Your task to perform on an android device: read, delete, or share a saved page in the chrome app Image 0: 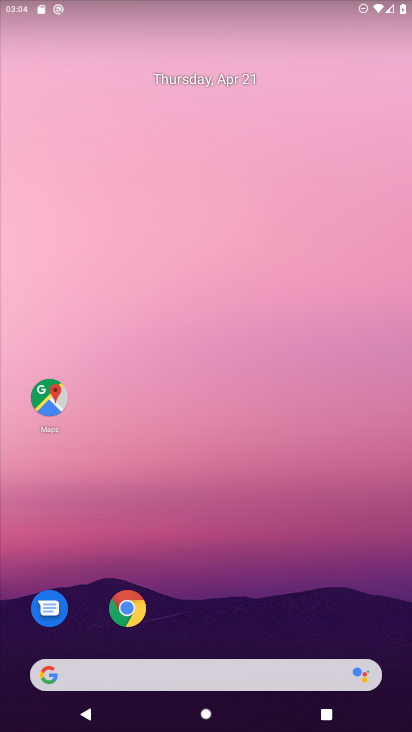
Step 0: drag from (240, 458) to (226, 236)
Your task to perform on an android device: read, delete, or share a saved page in the chrome app Image 1: 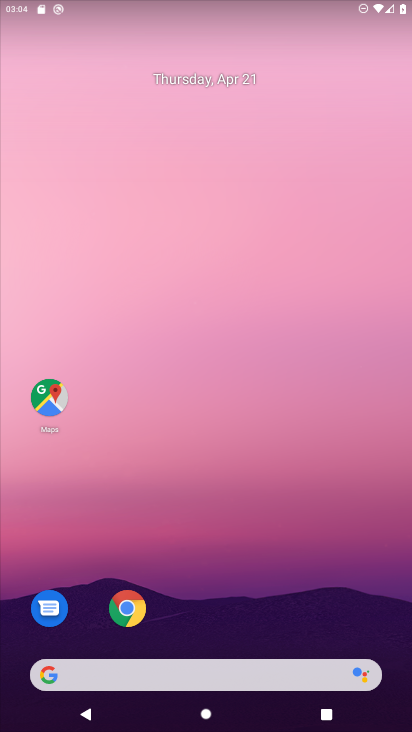
Step 1: drag from (216, 616) to (201, 264)
Your task to perform on an android device: read, delete, or share a saved page in the chrome app Image 2: 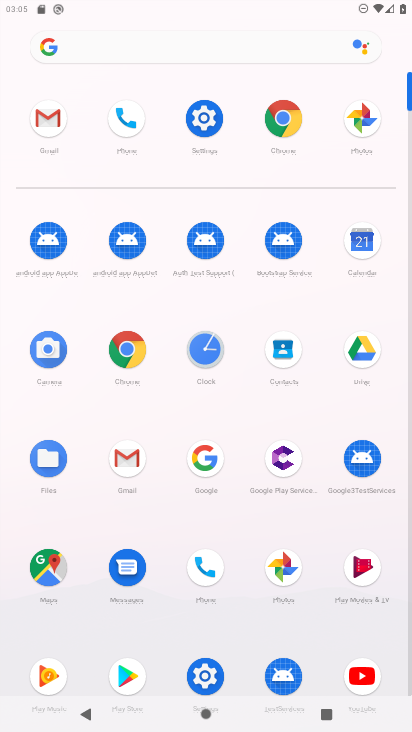
Step 2: click (280, 112)
Your task to perform on an android device: read, delete, or share a saved page in the chrome app Image 3: 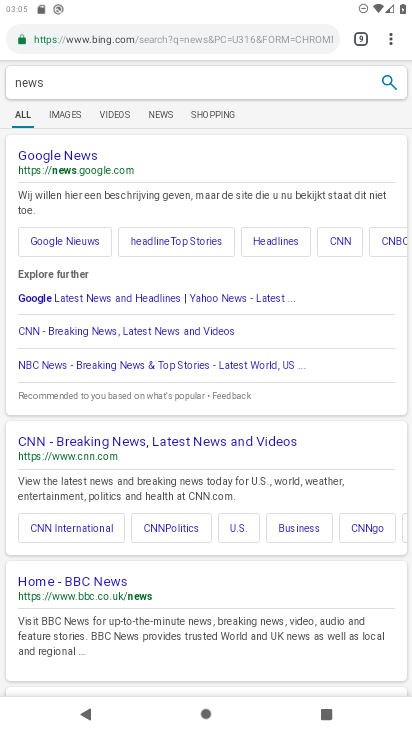
Step 3: click (386, 38)
Your task to perform on an android device: read, delete, or share a saved page in the chrome app Image 4: 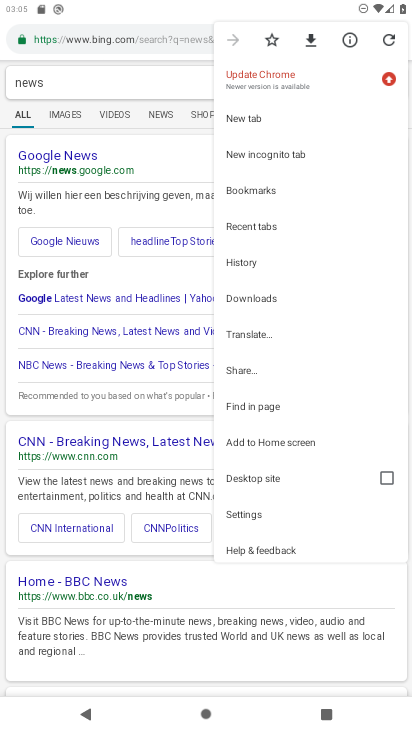
Step 4: click (262, 297)
Your task to perform on an android device: read, delete, or share a saved page in the chrome app Image 5: 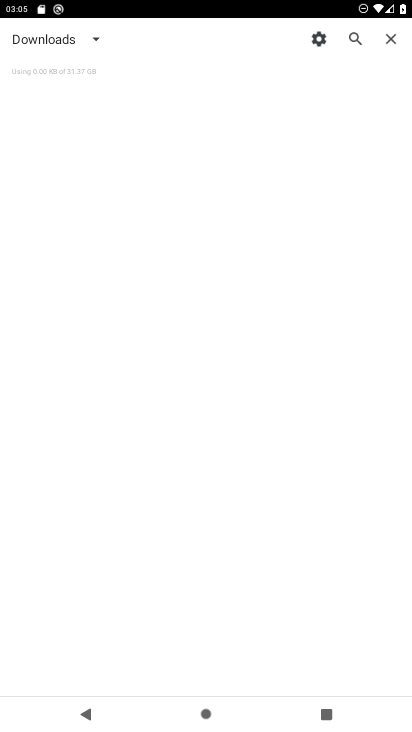
Step 5: click (92, 42)
Your task to perform on an android device: read, delete, or share a saved page in the chrome app Image 6: 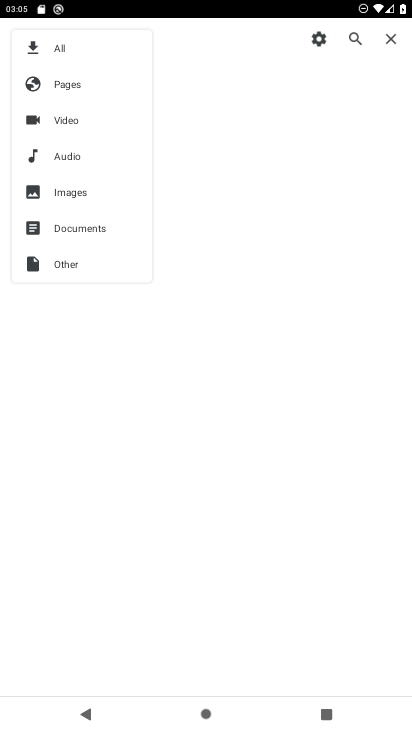
Step 6: click (75, 85)
Your task to perform on an android device: read, delete, or share a saved page in the chrome app Image 7: 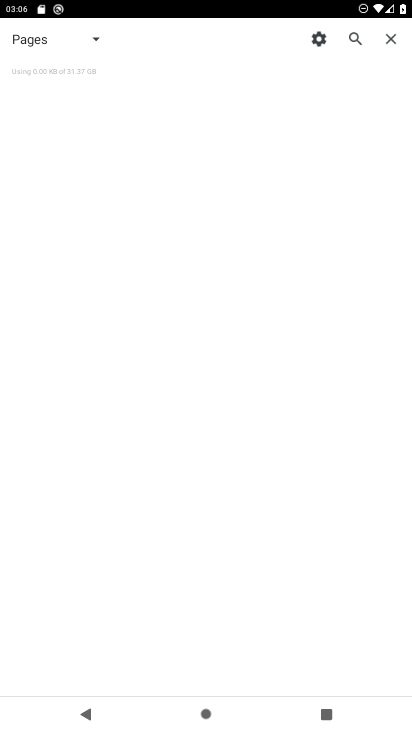
Step 7: task complete